Your task to perform on an android device: delete browsing data in the chrome app Image 0: 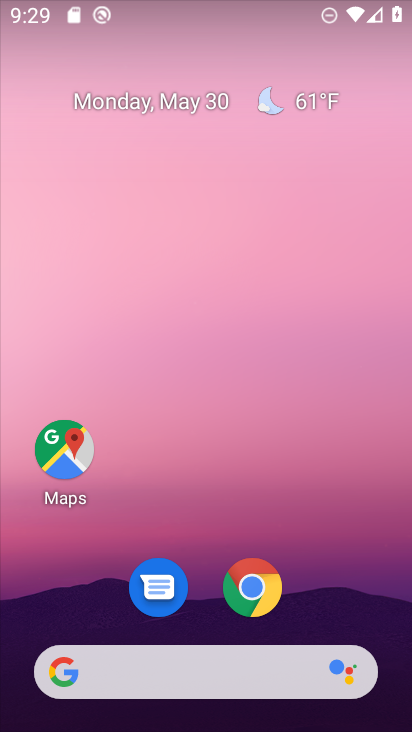
Step 0: click (262, 577)
Your task to perform on an android device: delete browsing data in the chrome app Image 1: 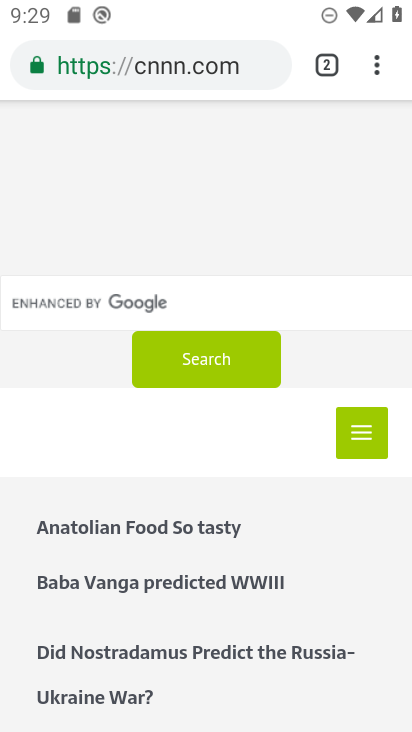
Step 1: click (376, 68)
Your task to perform on an android device: delete browsing data in the chrome app Image 2: 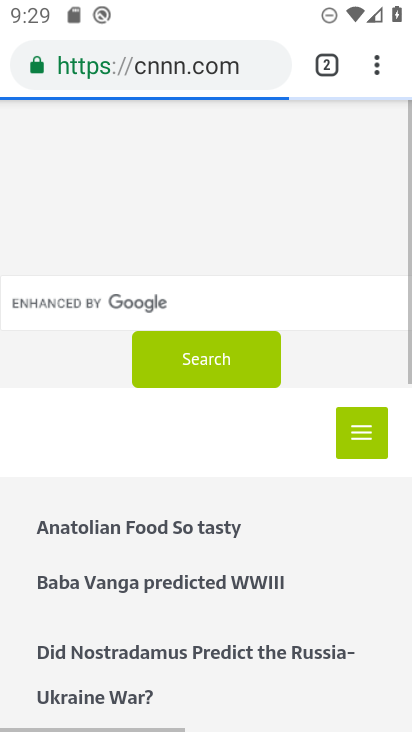
Step 2: click (376, 68)
Your task to perform on an android device: delete browsing data in the chrome app Image 3: 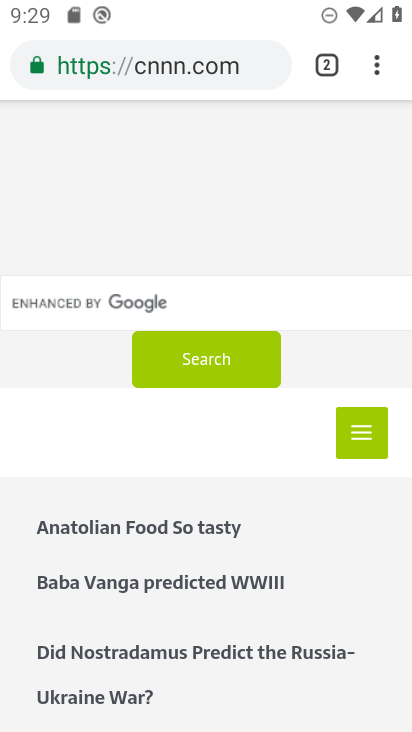
Step 3: drag from (374, 67) to (145, 376)
Your task to perform on an android device: delete browsing data in the chrome app Image 4: 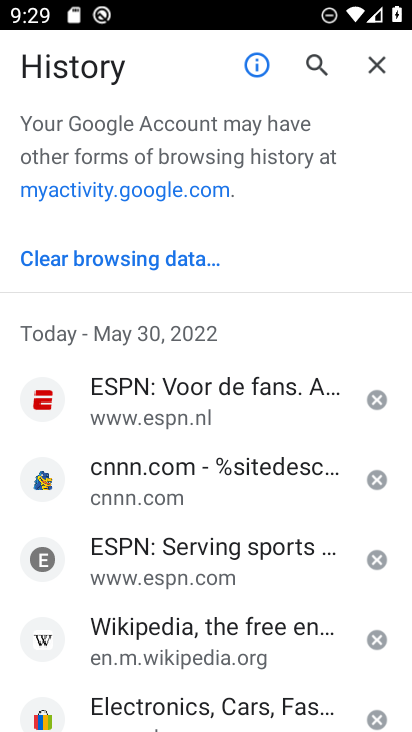
Step 4: click (109, 266)
Your task to perform on an android device: delete browsing data in the chrome app Image 5: 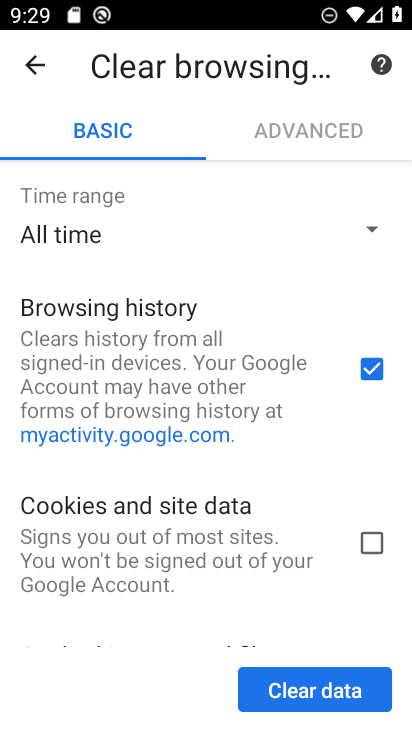
Step 5: drag from (295, 574) to (277, 150)
Your task to perform on an android device: delete browsing data in the chrome app Image 6: 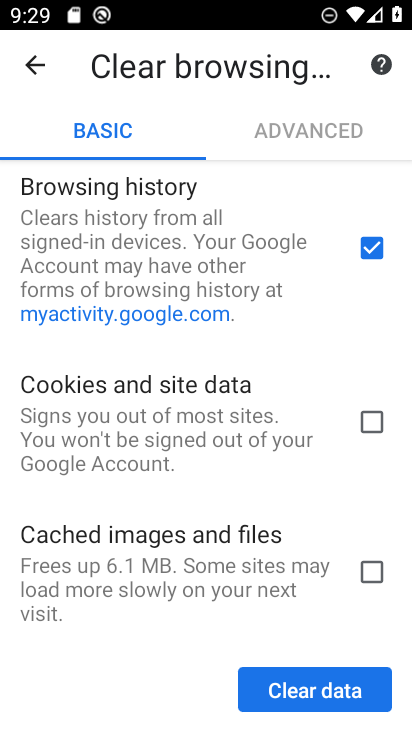
Step 6: click (352, 394)
Your task to perform on an android device: delete browsing data in the chrome app Image 7: 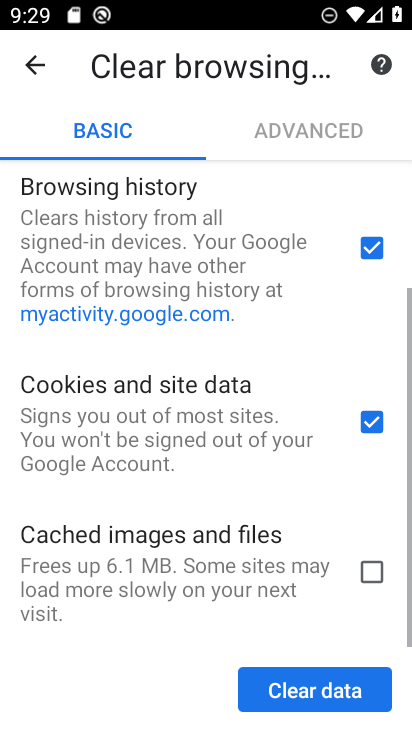
Step 7: click (378, 566)
Your task to perform on an android device: delete browsing data in the chrome app Image 8: 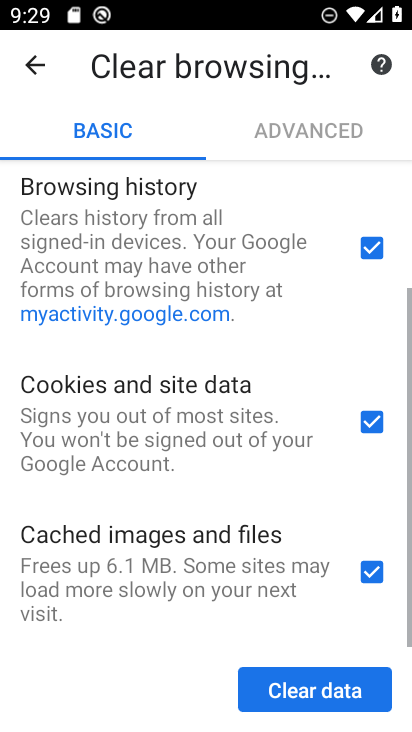
Step 8: click (327, 688)
Your task to perform on an android device: delete browsing data in the chrome app Image 9: 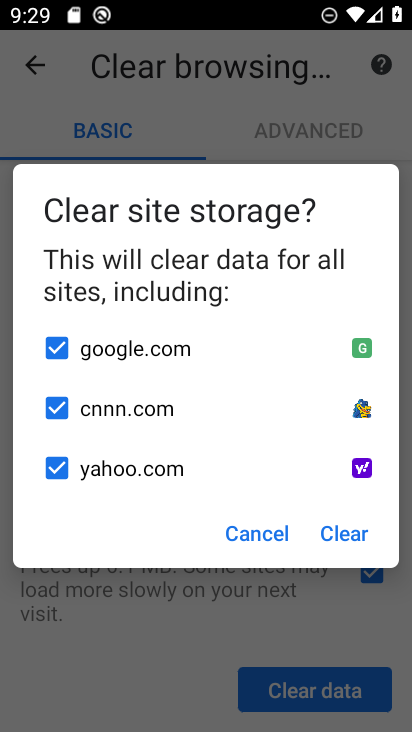
Step 9: click (356, 544)
Your task to perform on an android device: delete browsing data in the chrome app Image 10: 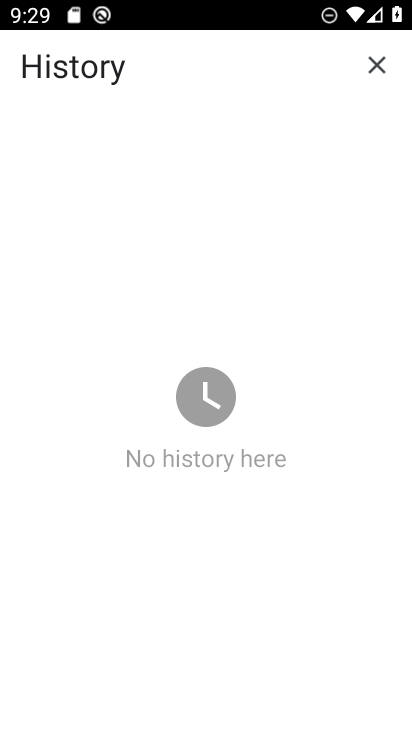
Step 10: task complete